Your task to perform on an android device: open device folders in google photos Image 0: 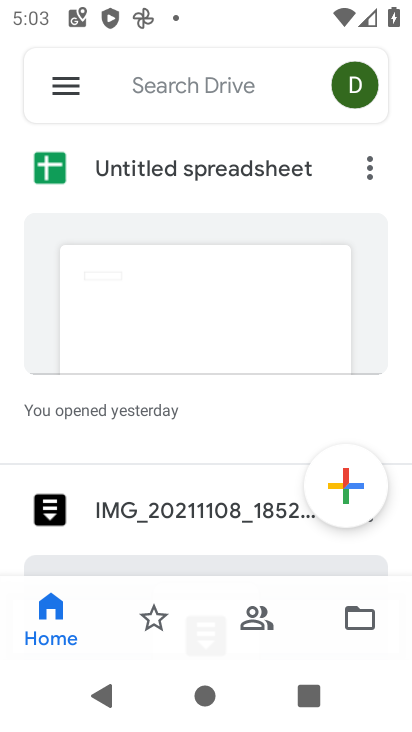
Step 0: press home button
Your task to perform on an android device: open device folders in google photos Image 1: 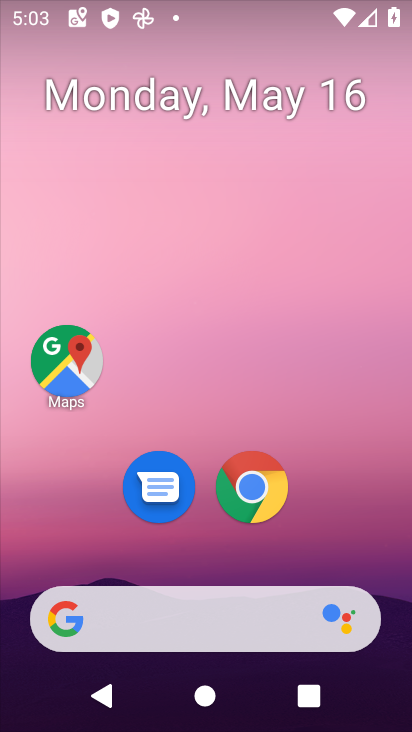
Step 1: drag from (401, 616) to (313, 95)
Your task to perform on an android device: open device folders in google photos Image 2: 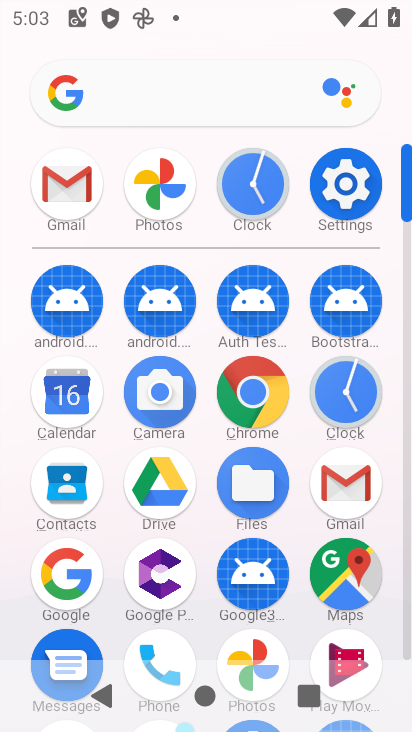
Step 2: click (406, 649)
Your task to perform on an android device: open device folders in google photos Image 3: 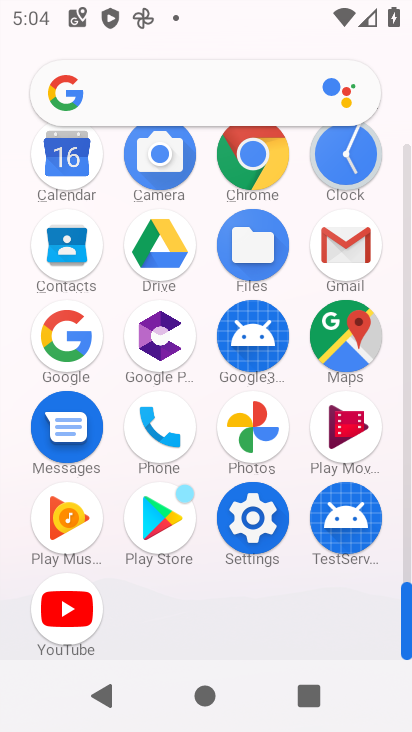
Step 3: click (253, 423)
Your task to perform on an android device: open device folders in google photos Image 4: 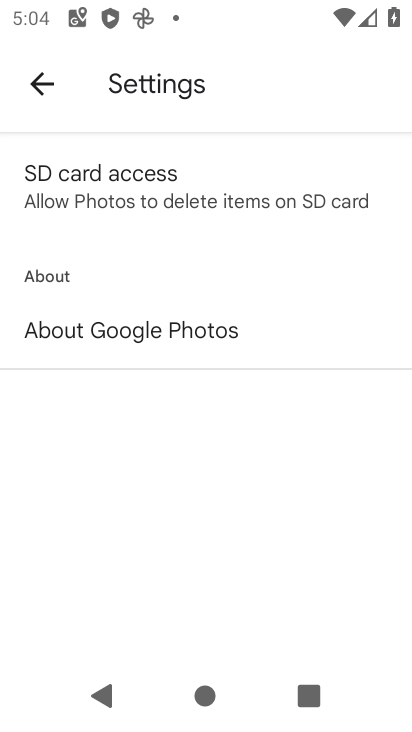
Step 4: press back button
Your task to perform on an android device: open device folders in google photos Image 5: 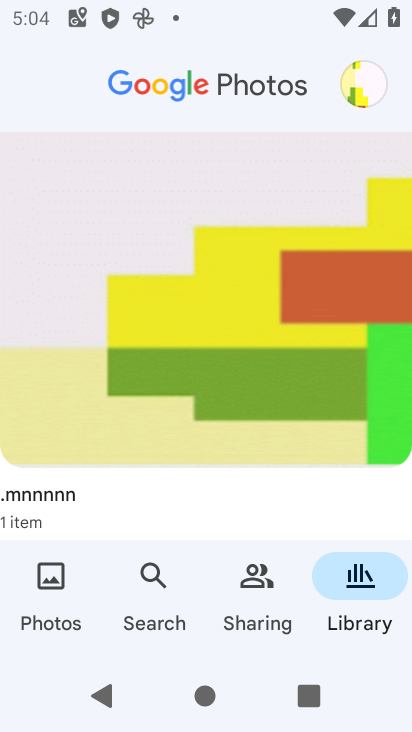
Step 5: click (358, 84)
Your task to perform on an android device: open device folders in google photos Image 6: 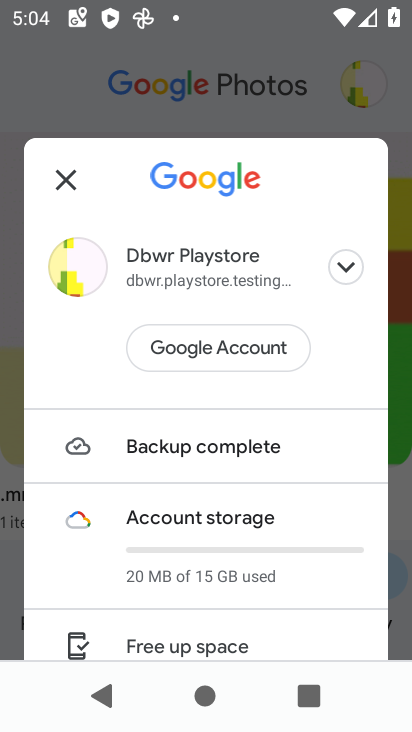
Step 6: drag from (308, 594) to (263, 283)
Your task to perform on an android device: open device folders in google photos Image 7: 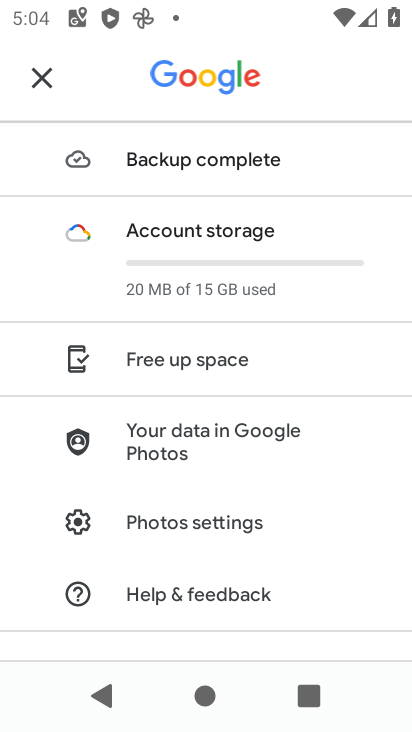
Step 7: click (47, 74)
Your task to perform on an android device: open device folders in google photos Image 8: 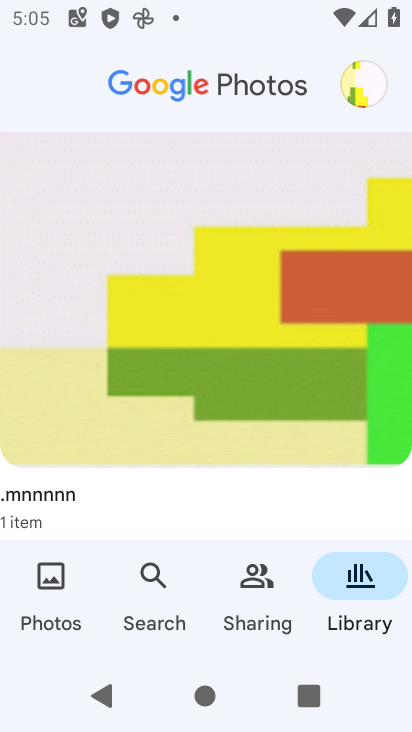
Step 8: task complete